Your task to perform on an android device: set the timer Image 0: 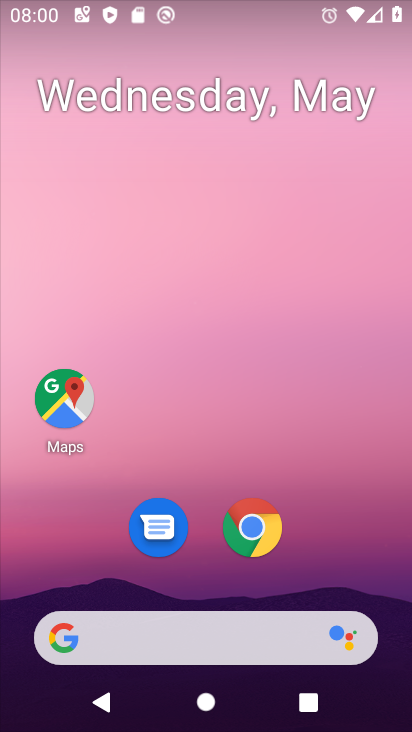
Step 0: drag from (328, 420) to (347, 104)
Your task to perform on an android device: set the timer Image 1: 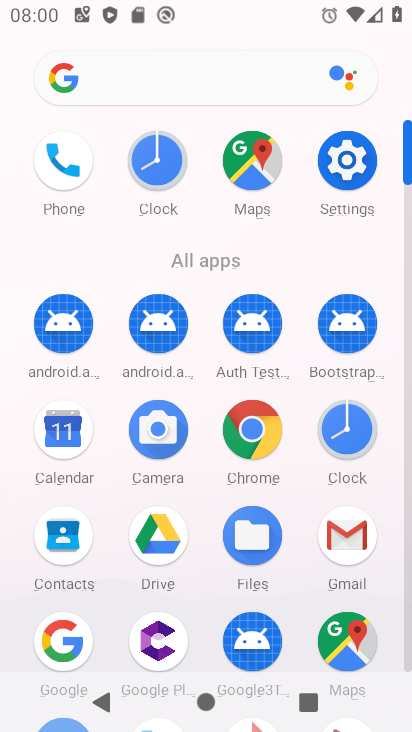
Step 1: click (150, 178)
Your task to perform on an android device: set the timer Image 2: 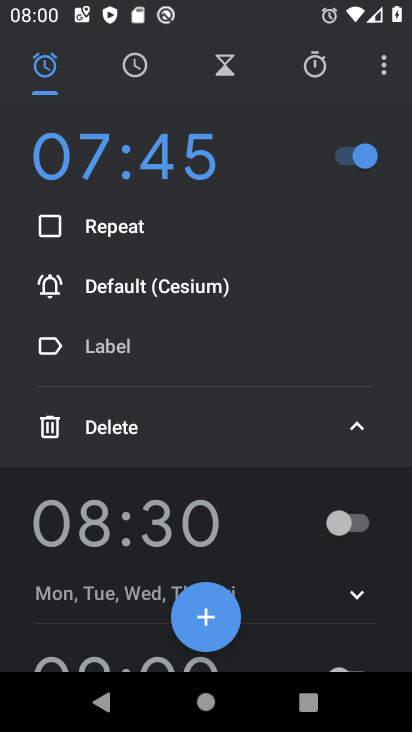
Step 2: click (218, 68)
Your task to perform on an android device: set the timer Image 3: 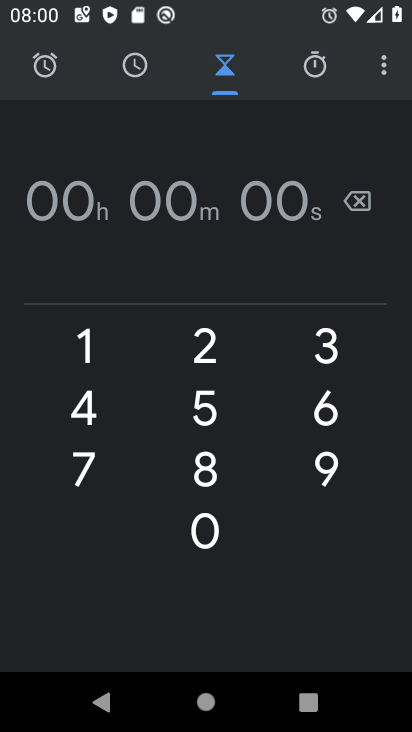
Step 3: click (90, 394)
Your task to perform on an android device: set the timer Image 4: 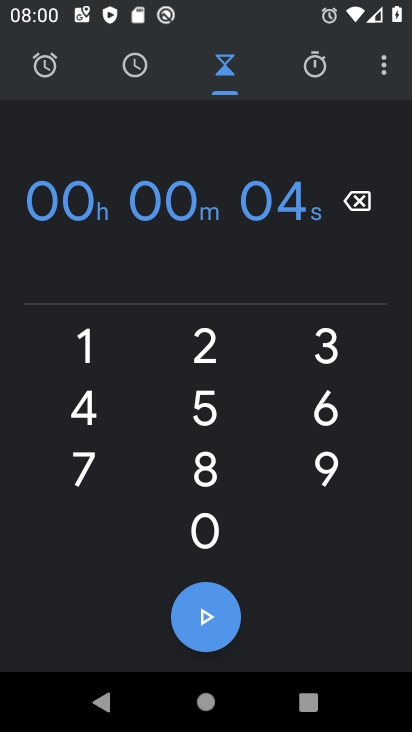
Step 4: click (200, 345)
Your task to perform on an android device: set the timer Image 5: 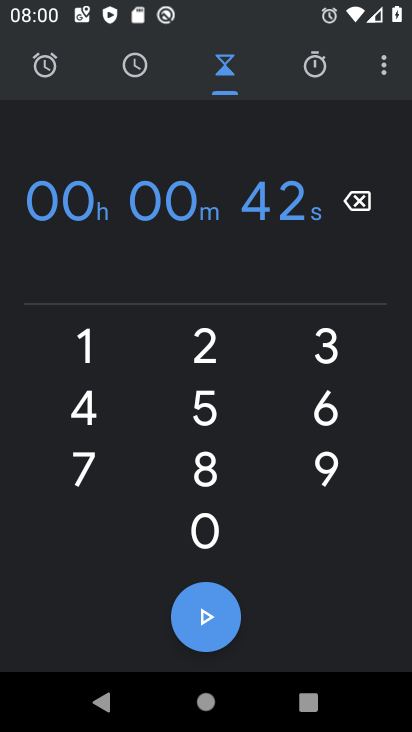
Step 5: click (210, 418)
Your task to perform on an android device: set the timer Image 6: 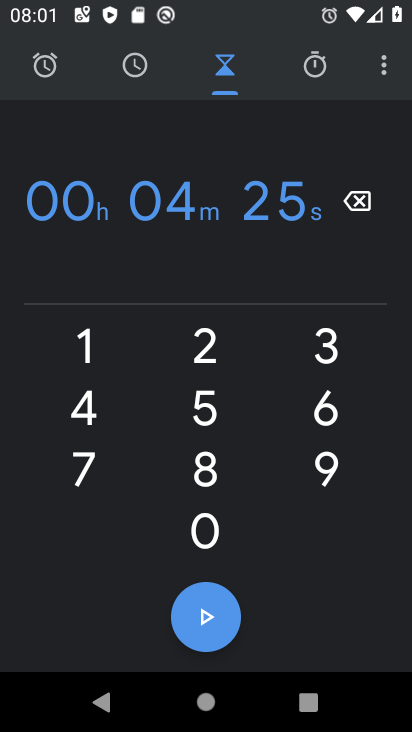
Step 6: click (204, 472)
Your task to perform on an android device: set the timer Image 7: 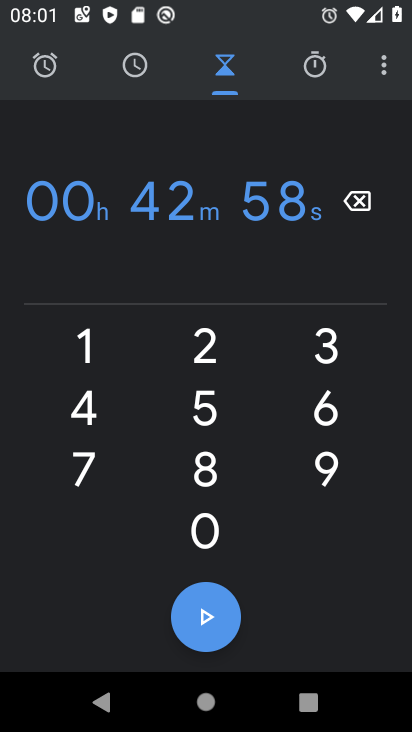
Step 7: click (204, 472)
Your task to perform on an android device: set the timer Image 8: 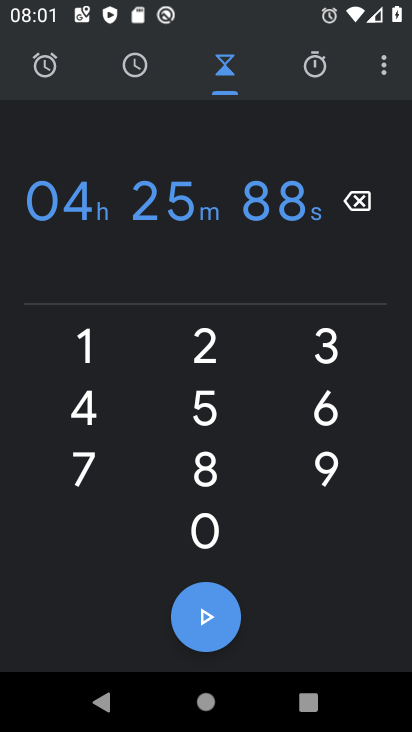
Step 8: click (194, 625)
Your task to perform on an android device: set the timer Image 9: 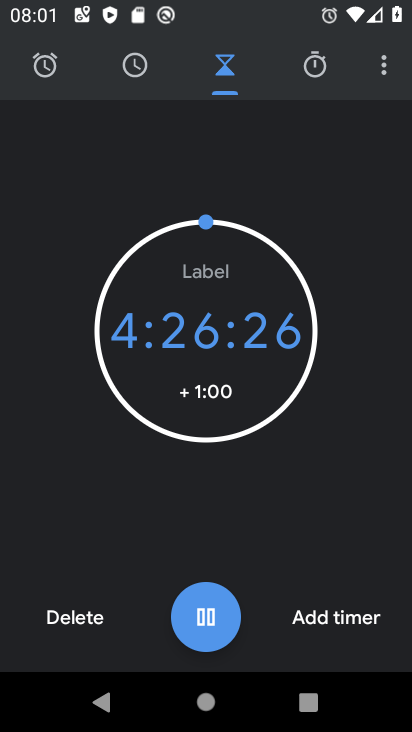
Step 9: task complete